Your task to perform on an android device: turn on data saver in the chrome app Image 0: 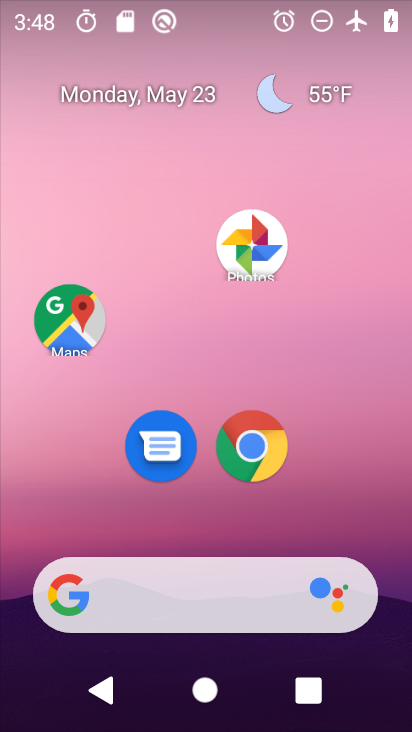
Step 0: click (239, 451)
Your task to perform on an android device: turn on data saver in the chrome app Image 1: 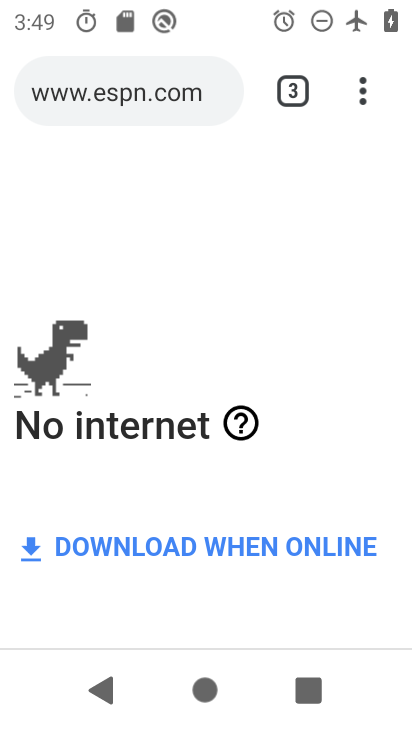
Step 1: click (360, 81)
Your task to perform on an android device: turn on data saver in the chrome app Image 2: 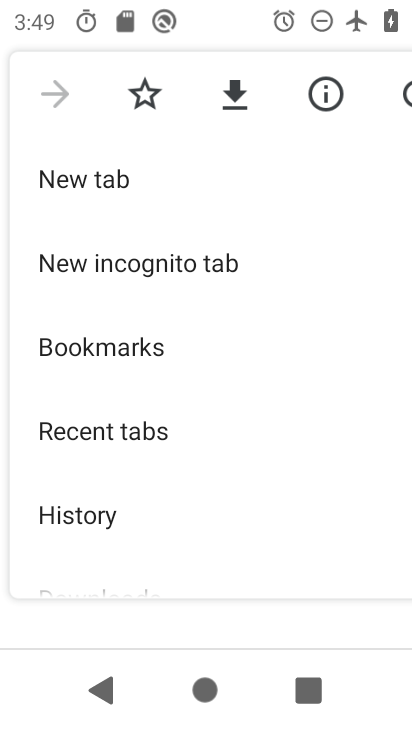
Step 2: drag from (212, 480) to (187, 224)
Your task to perform on an android device: turn on data saver in the chrome app Image 3: 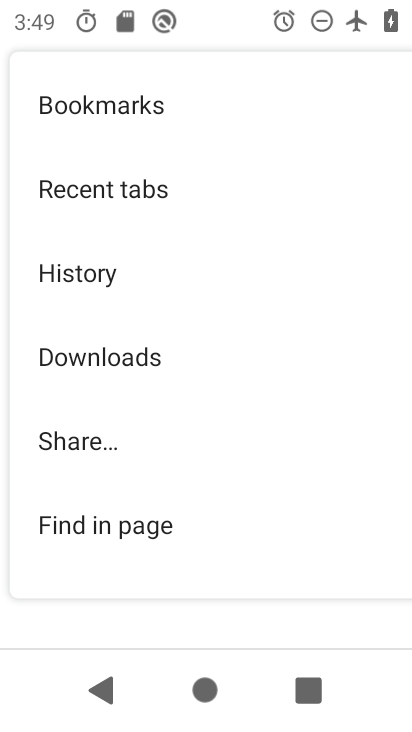
Step 3: drag from (195, 497) to (150, 230)
Your task to perform on an android device: turn on data saver in the chrome app Image 4: 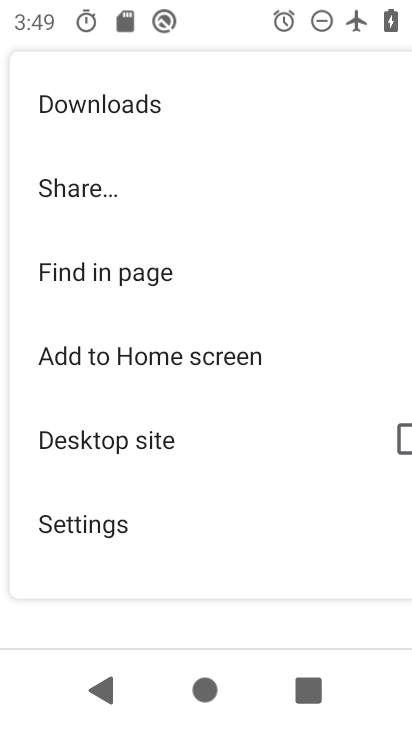
Step 4: click (135, 534)
Your task to perform on an android device: turn on data saver in the chrome app Image 5: 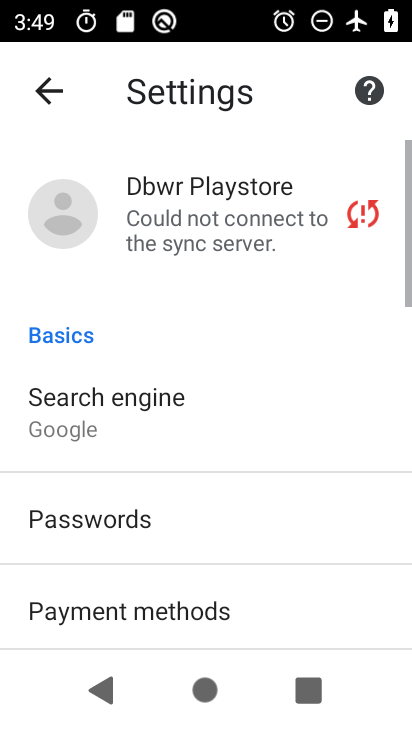
Step 5: drag from (164, 534) to (139, 258)
Your task to perform on an android device: turn on data saver in the chrome app Image 6: 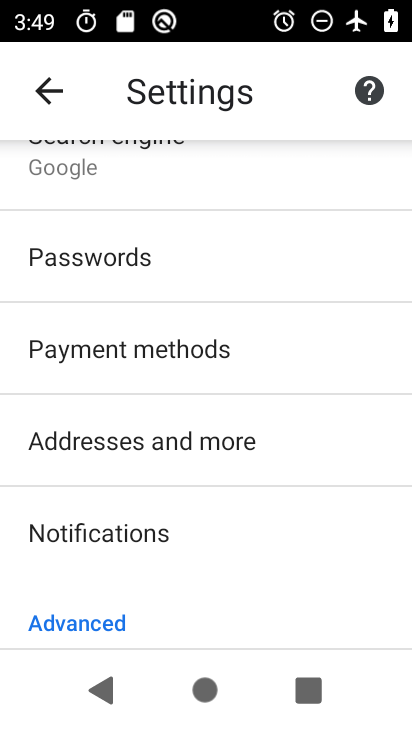
Step 6: drag from (157, 500) to (154, 241)
Your task to perform on an android device: turn on data saver in the chrome app Image 7: 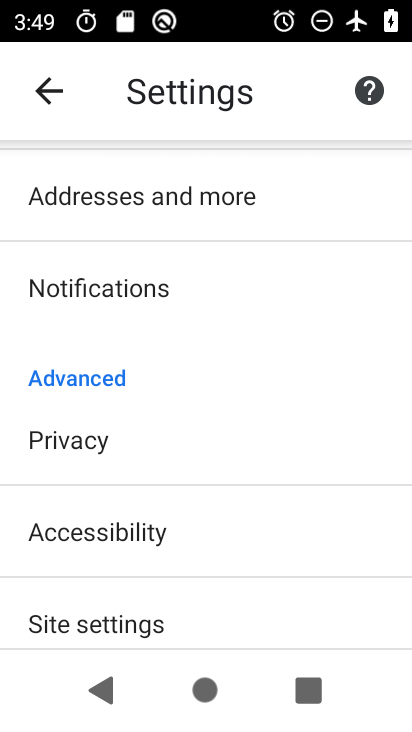
Step 7: drag from (159, 554) to (152, 264)
Your task to perform on an android device: turn on data saver in the chrome app Image 8: 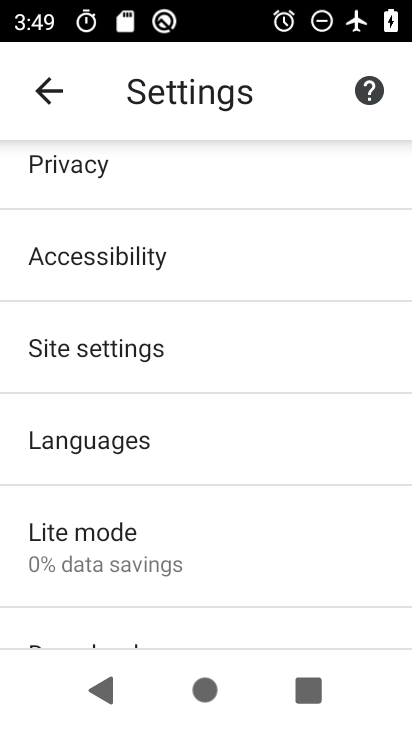
Step 8: click (138, 525)
Your task to perform on an android device: turn on data saver in the chrome app Image 9: 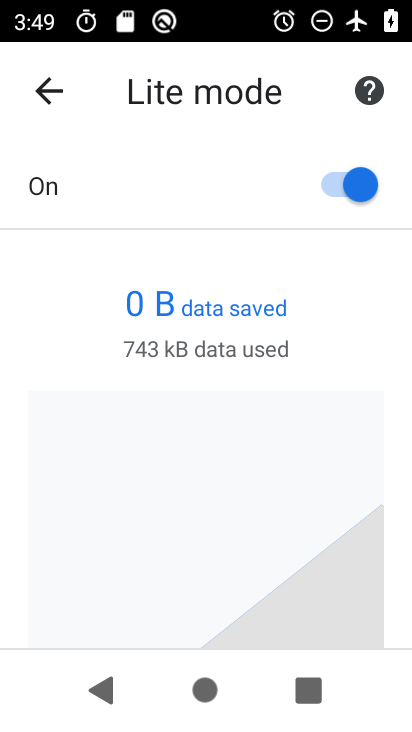
Step 9: task complete